Your task to perform on an android device: Open privacy settings Image 0: 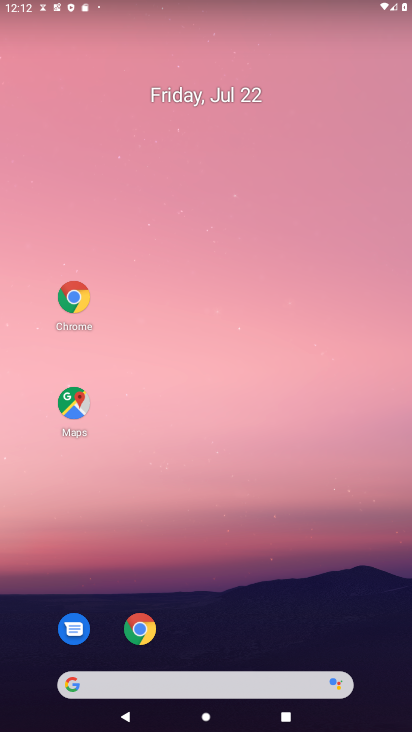
Step 0: drag from (257, 696) to (256, 129)
Your task to perform on an android device: Open privacy settings Image 1: 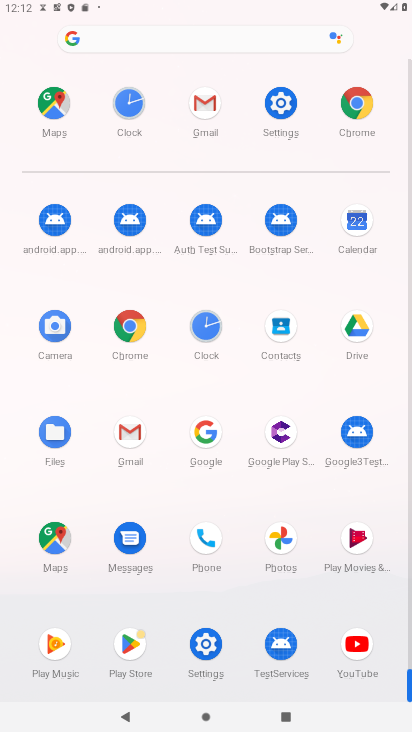
Step 1: click (280, 100)
Your task to perform on an android device: Open privacy settings Image 2: 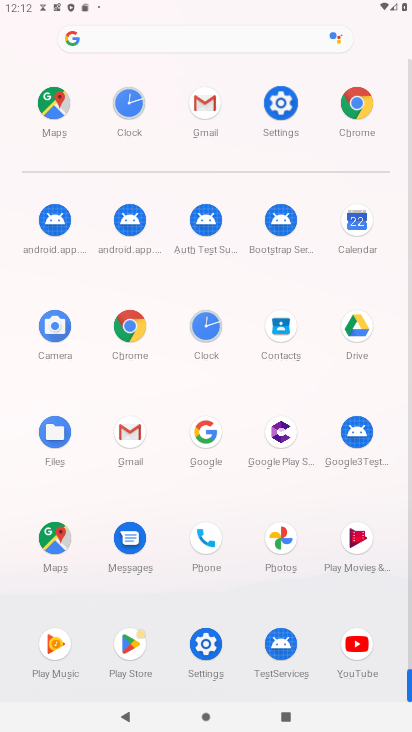
Step 2: click (279, 100)
Your task to perform on an android device: Open privacy settings Image 3: 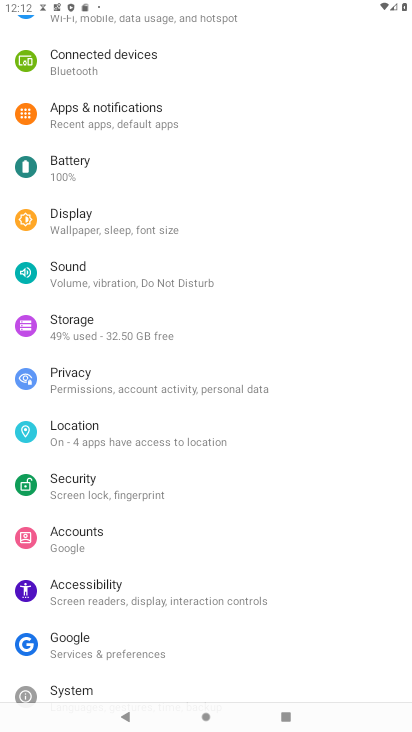
Step 3: click (73, 389)
Your task to perform on an android device: Open privacy settings Image 4: 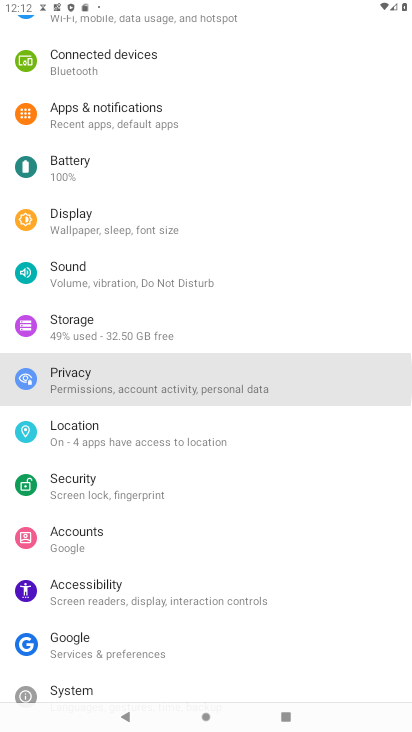
Step 4: click (74, 389)
Your task to perform on an android device: Open privacy settings Image 5: 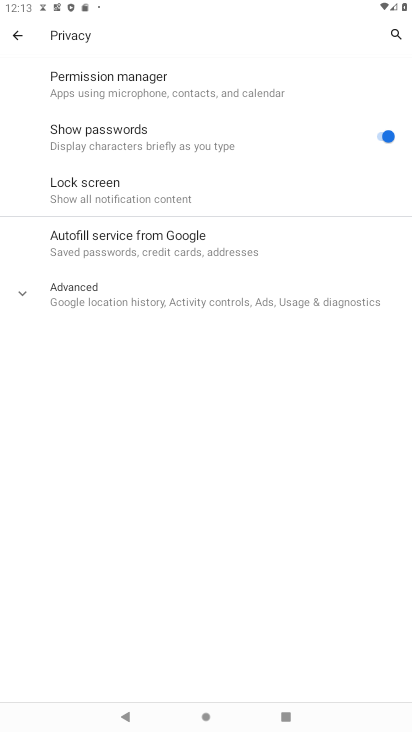
Step 5: task complete